Your task to perform on an android device: Go to Google maps Image 0: 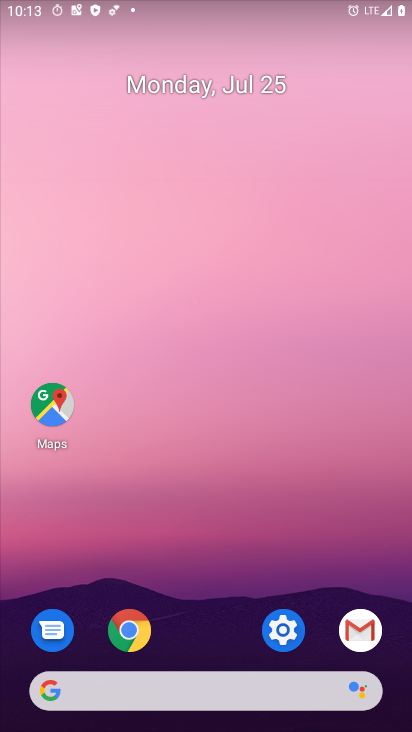
Step 0: click (53, 397)
Your task to perform on an android device: Go to Google maps Image 1: 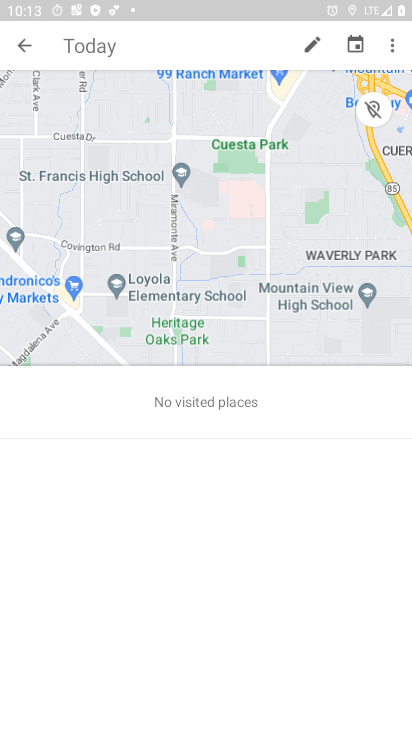
Step 1: click (21, 53)
Your task to perform on an android device: Go to Google maps Image 2: 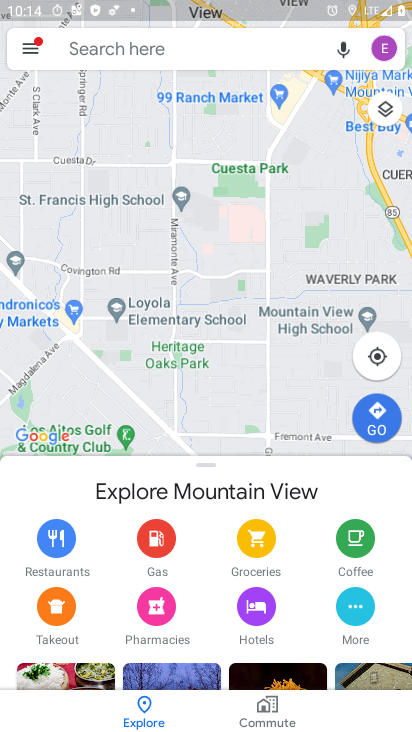
Step 2: task complete